Your task to perform on an android device: delete a single message in the gmail app Image 0: 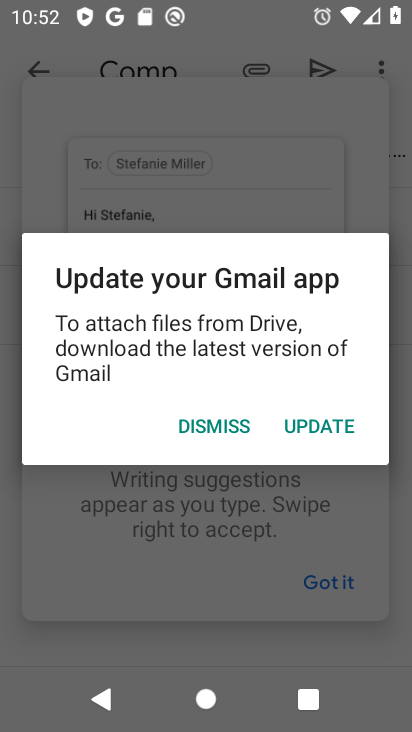
Step 0: press home button
Your task to perform on an android device: delete a single message in the gmail app Image 1: 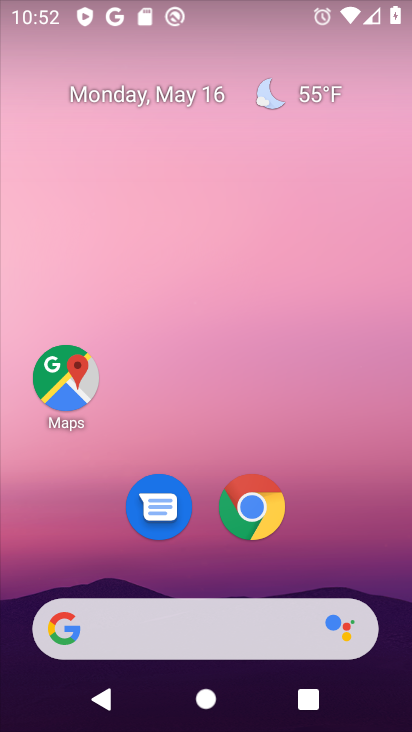
Step 1: drag from (268, 387) to (248, 79)
Your task to perform on an android device: delete a single message in the gmail app Image 2: 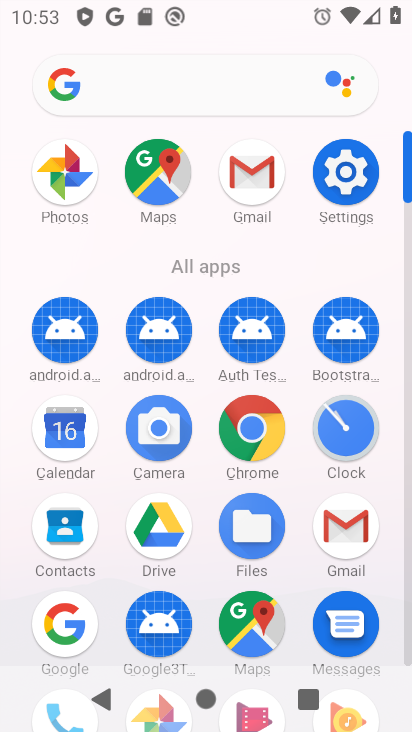
Step 2: click (248, 211)
Your task to perform on an android device: delete a single message in the gmail app Image 3: 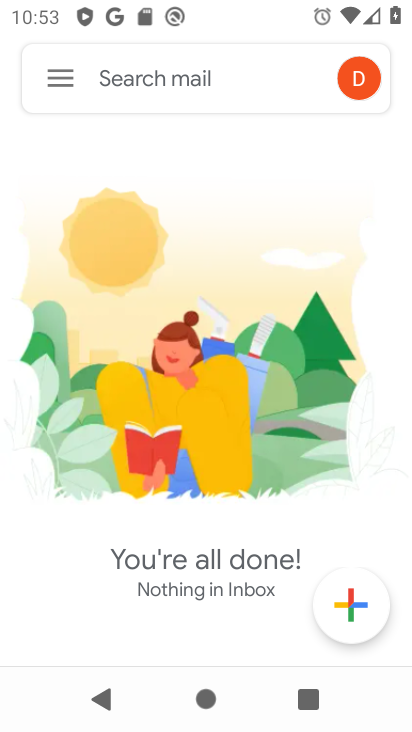
Step 3: click (48, 76)
Your task to perform on an android device: delete a single message in the gmail app Image 4: 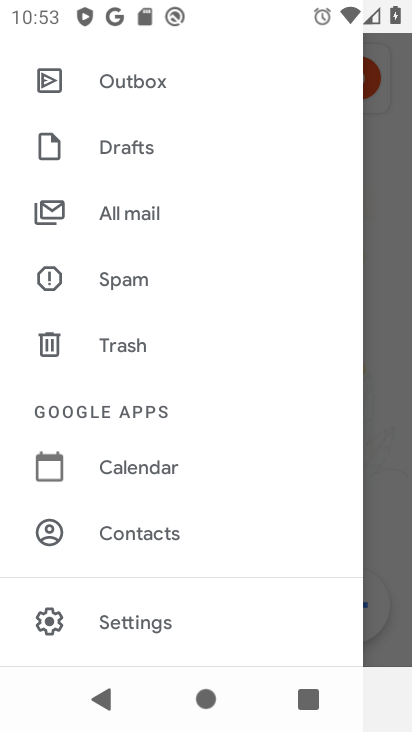
Step 4: click (150, 200)
Your task to perform on an android device: delete a single message in the gmail app Image 5: 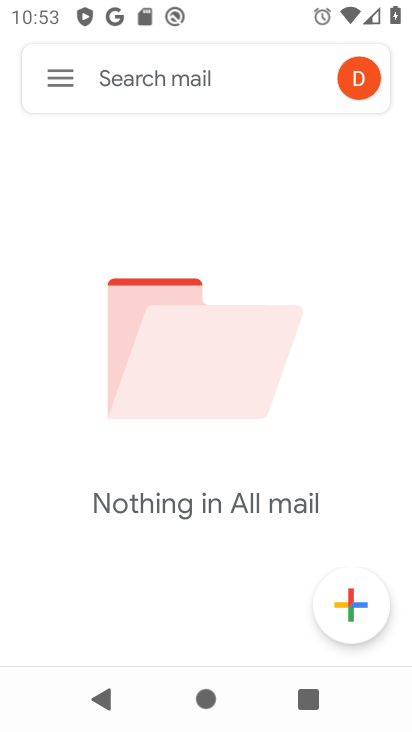
Step 5: task complete